Your task to perform on an android device: Open notification settings Image 0: 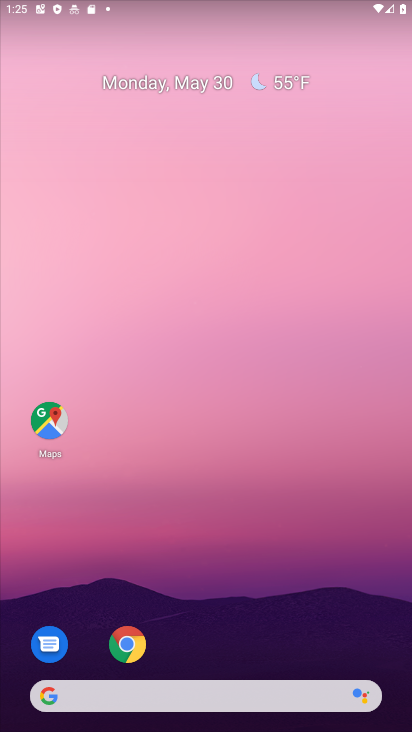
Step 0: drag from (298, 641) to (246, 53)
Your task to perform on an android device: Open notification settings Image 1: 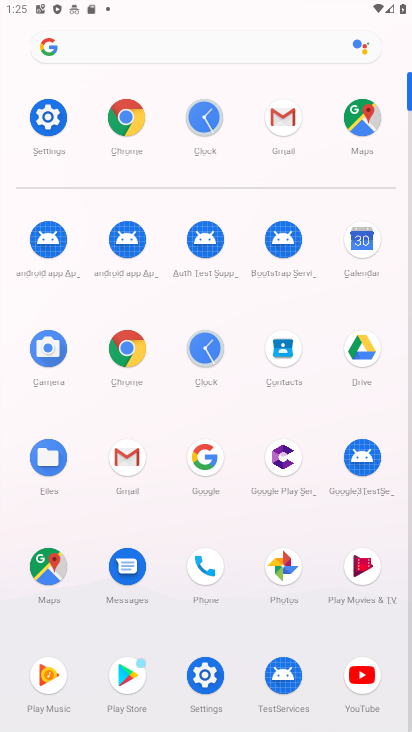
Step 1: click (50, 112)
Your task to perform on an android device: Open notification settings Image 2: 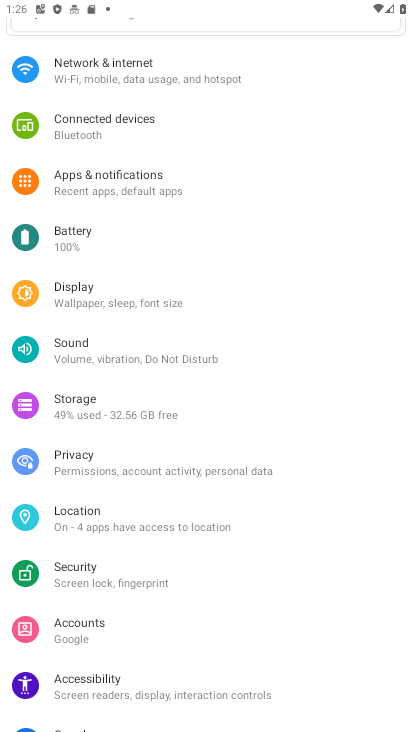
Step 2: click (181, 178)
Your task to perform on an android device: Open notification settings Image 3: 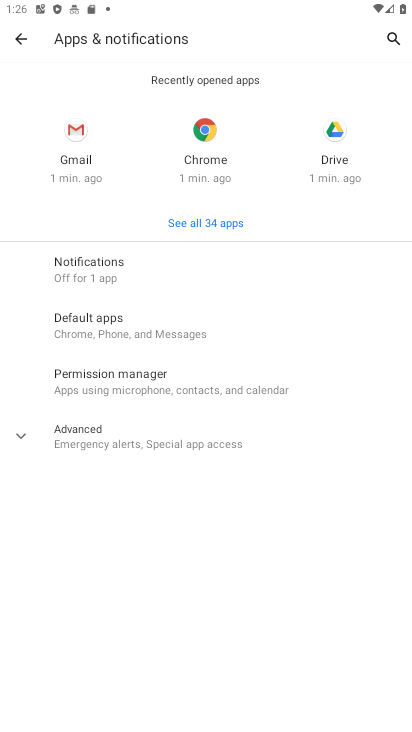
Step 3: click (185, 289)
Your task to perform on an android device: Open notification settings Image 4: 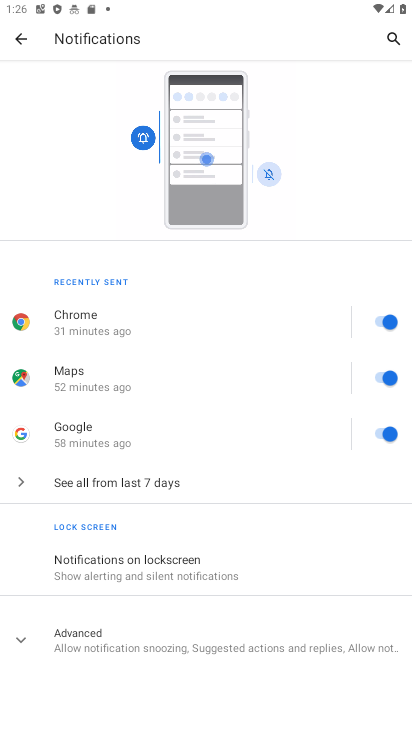
Step 4: task complete